Your task to perform on an android device: find photos in the google photos app Image 0: 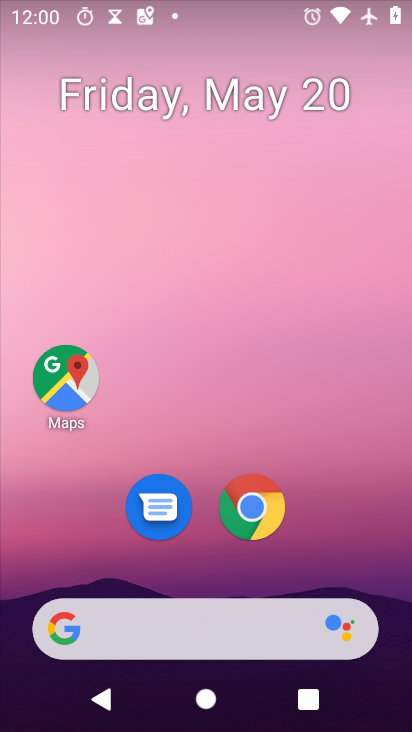
Step 0: drag from (345, 468) to (280, 27)
Your task to perform on an android device: find photos in the google photos app Image 1: 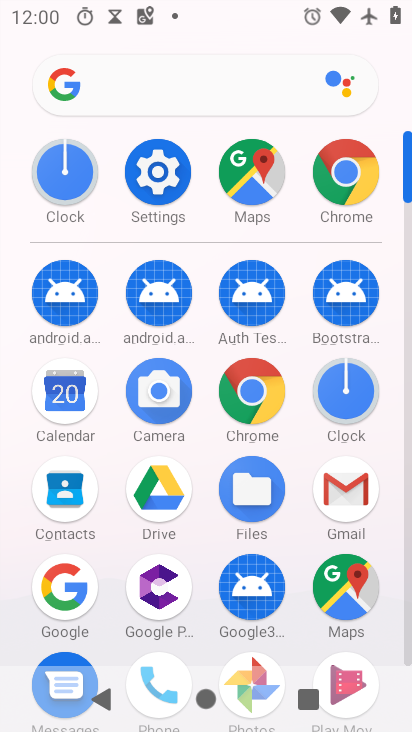
Step 1: drag from (13, 564) to (8, 195)
Your task to perform on an android device: find photos in the google photos app Image 2: 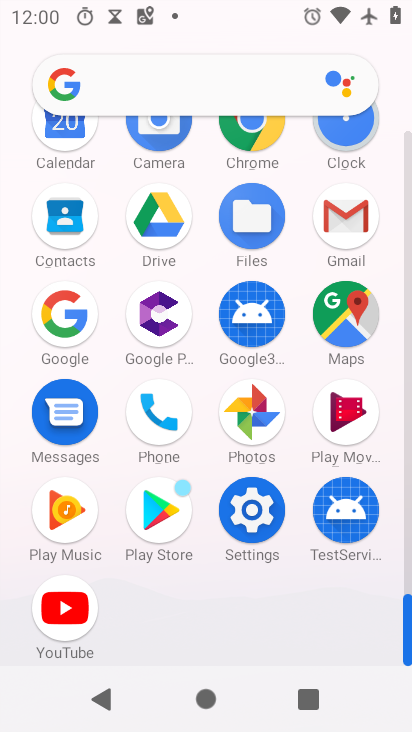
Step 2: click (251, 406)
Your task to perform on an android device: find photos in the google photos app Image 3: 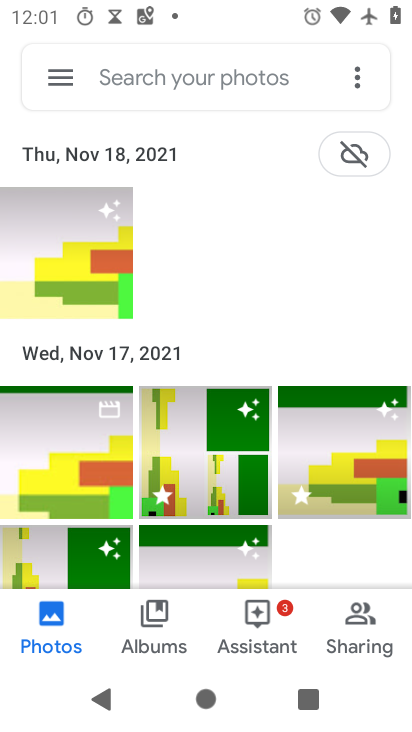
Step 3: task complete